Your task to perform on an android device: set the stopwatch Image 0: 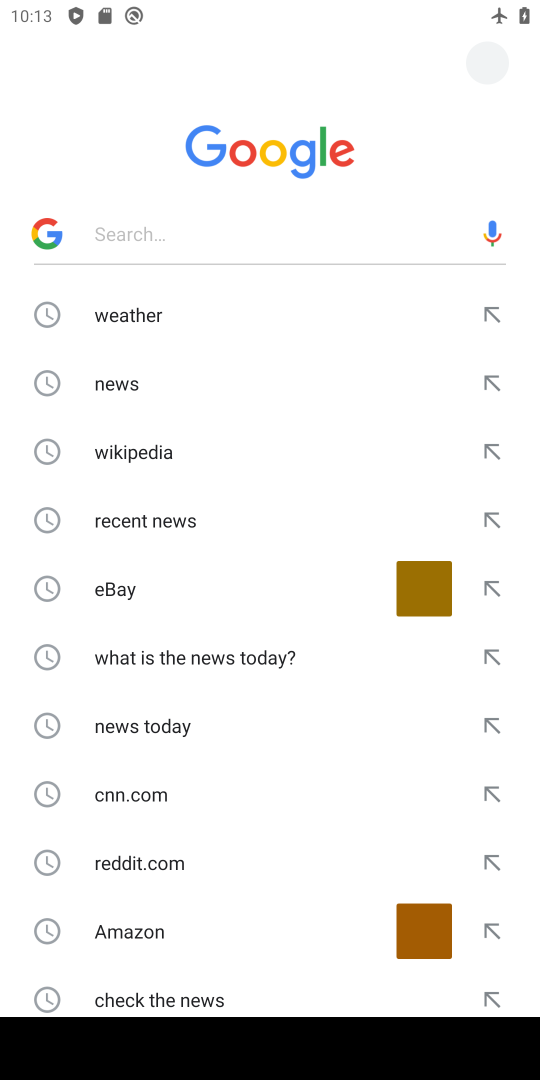
Step 0: press home button
Your task to perform on an android device: set the stopwatch Image 1: 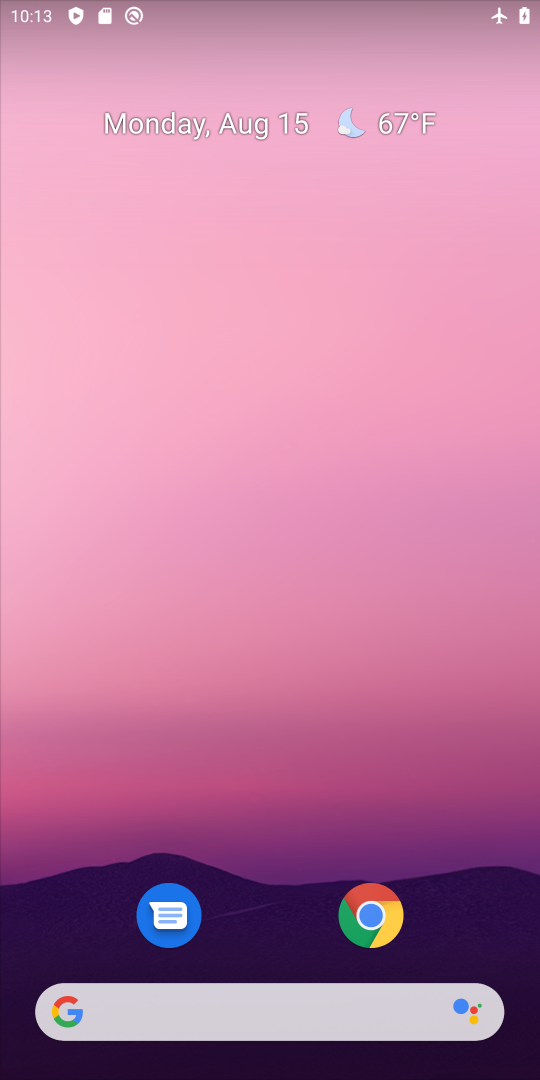
Step 1: drag from (490, 894) to (417, 0)
Your task to perform on an android device: set the stopwatch Image 2: 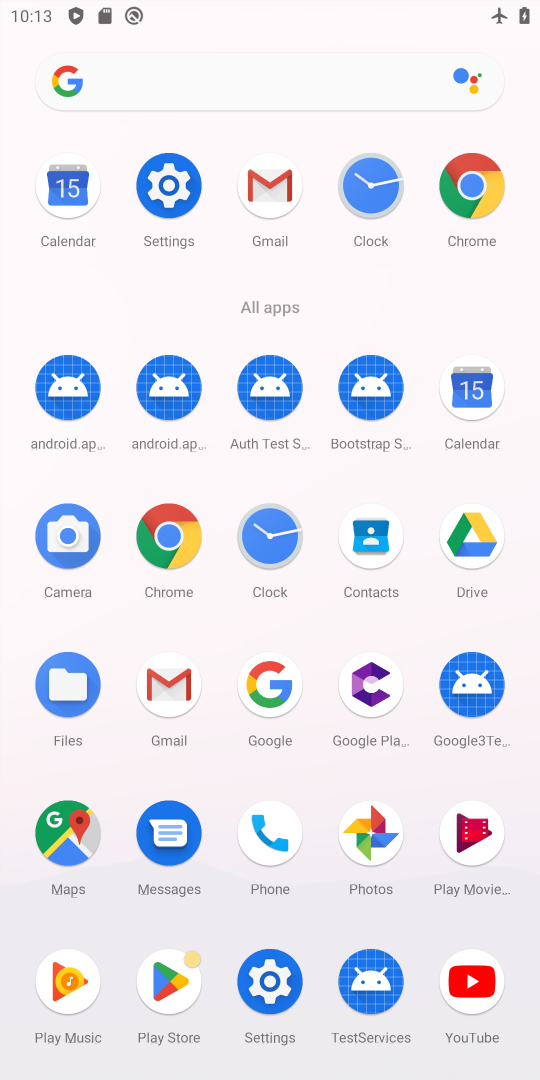
Step 2: click (369, 200)
Your task to perform on an android device: set the stopwatch Image 3: 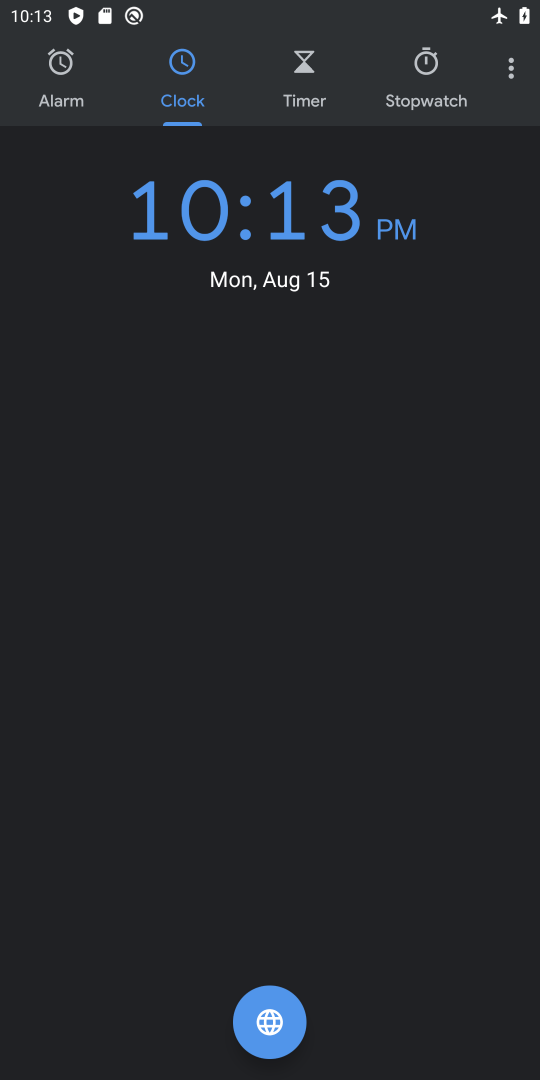
Step 3: click (419, 72)
Your task to perform on an android device: set the stopwatch Image 4: 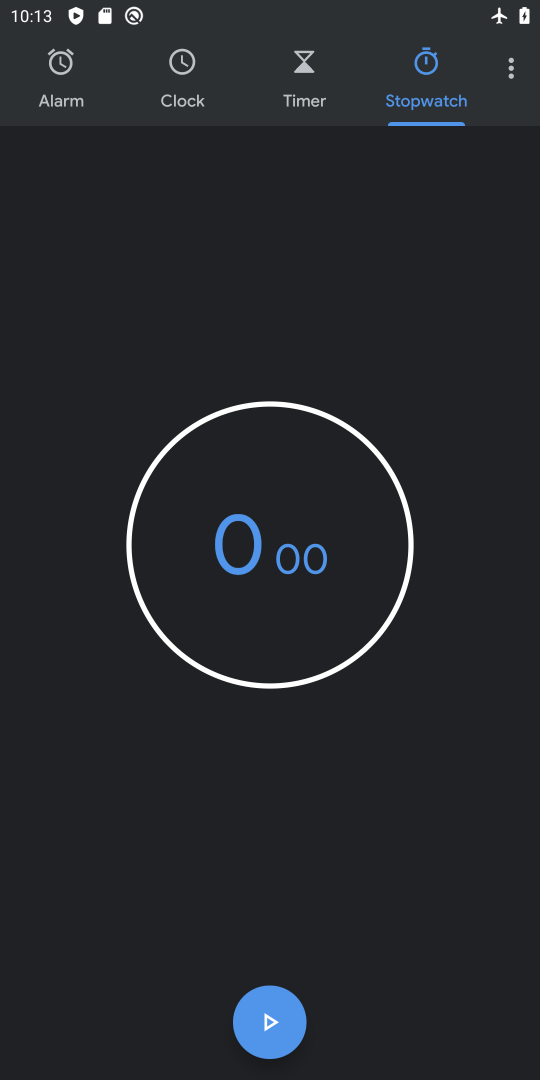
Step 4: click (298, 532)
Your task to perform on an android device: set the stopwatch Image 5: 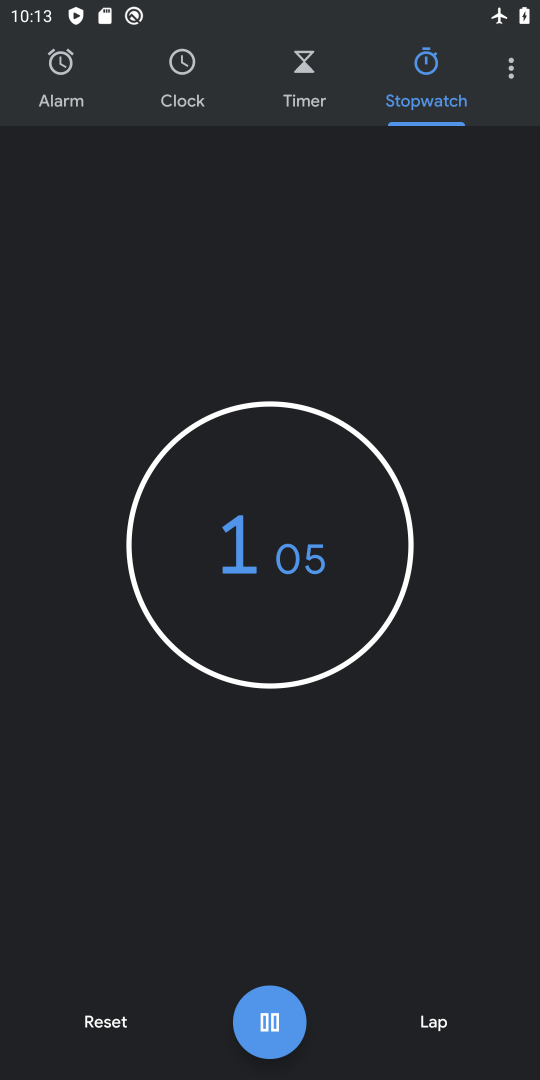
Step 5: task complete